Your task to perform on an android device: Open display settings Image 0: 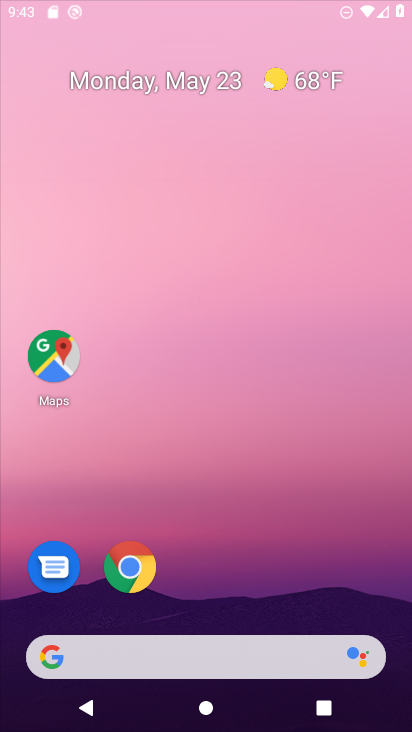
Step 0: click (199, 146)
Your task to perform on an android device: Open display settings Image 1: 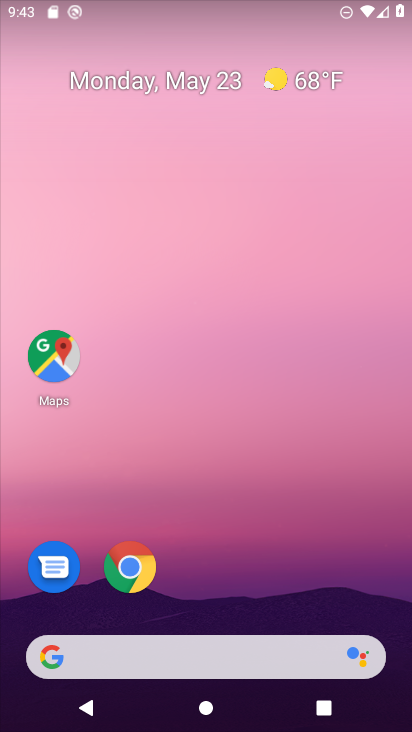
Step 1: drag from (181, 493) to (129, 6)
Your task to perform on an android device: Open display settings Image 2: 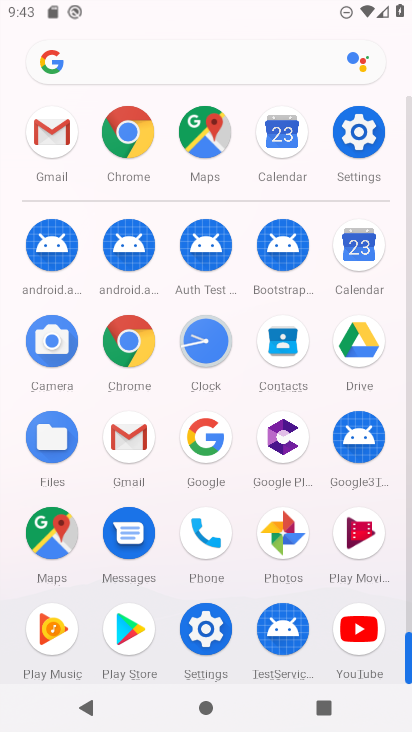
Step 2: click (364, 118)
Your task to perform on an android device: Open display settings Image 3: 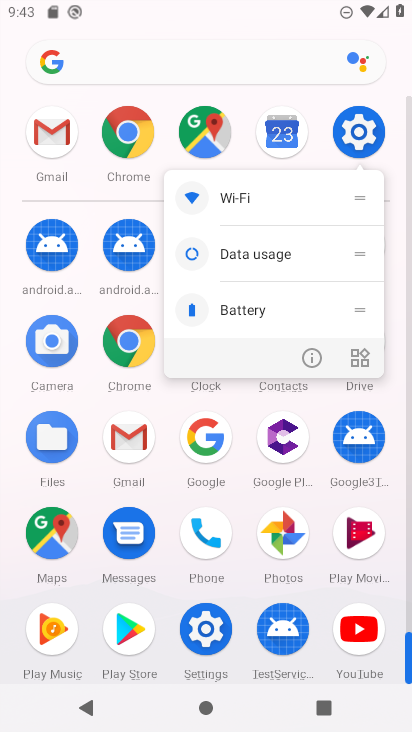
Step 3: click (326, 363)
Your task to perform on an android device: Open display settings Image 4: 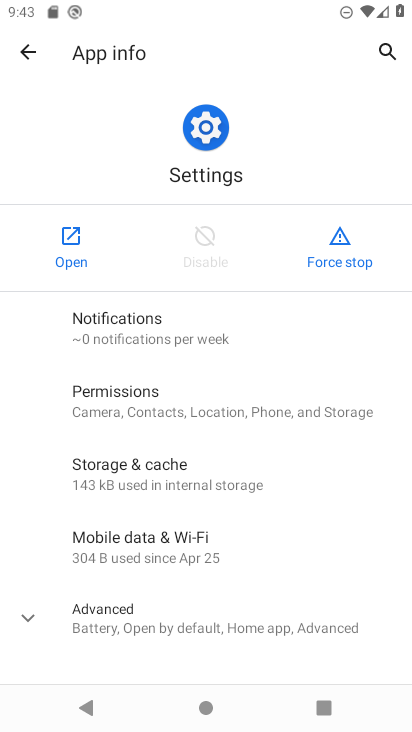
Step 4: click (73, 260)
Your task to perform on an android device: Open display settings Image 5: 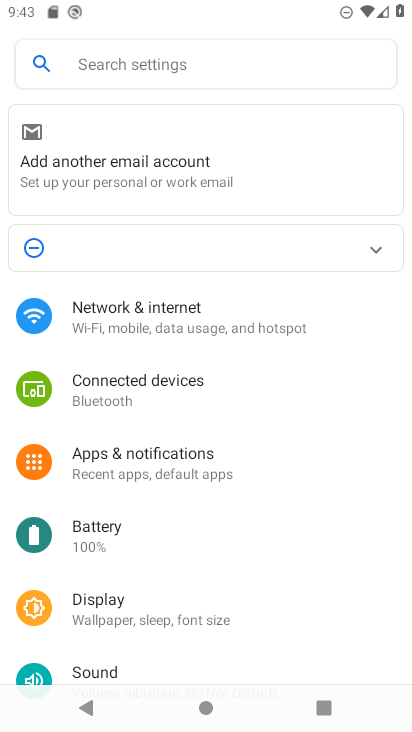
Step 5: click (150, 627)
Your task to perform on an android device: Open display settings Image 6: 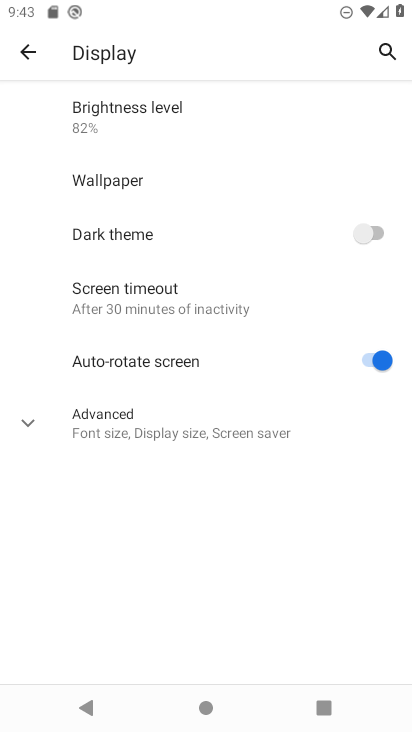
Step 6: task complete